Your task to perform on an android device: Go to Yahoo.com Image 0: 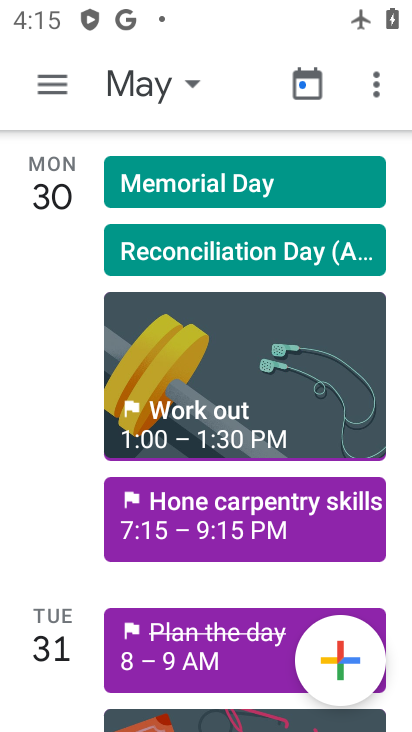
Step 0: press home button
Your task to perform on an android device: Go to Yahoo.com Image 1: 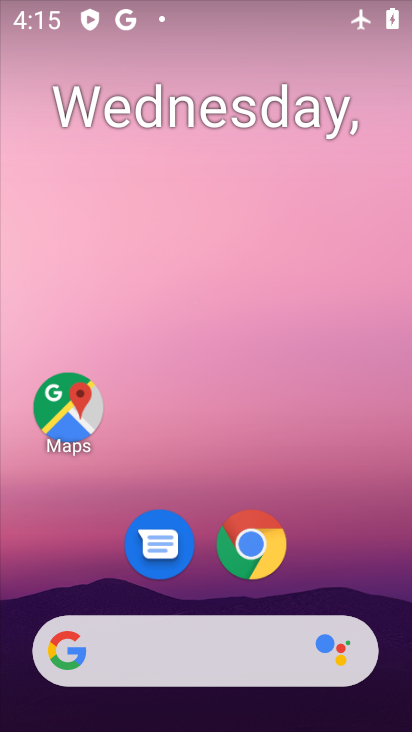
Step 1: drag from (386, 556) to (373, 221)
Your task to perform on an android device: Go to Yahoo.com Image 2: 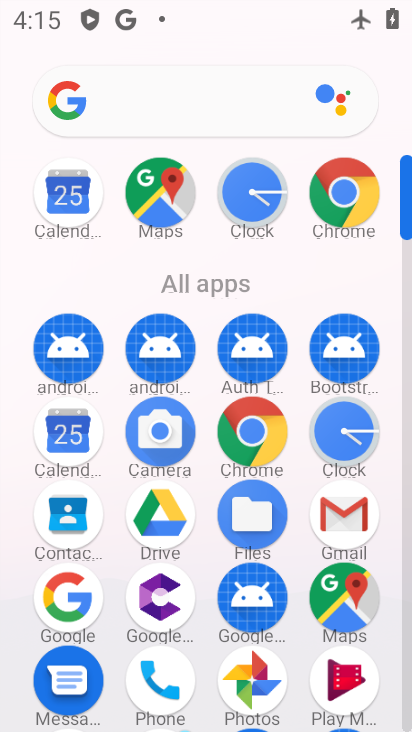
Step 2: click (267, 460)
Your task to perform on an android device: Go to Yahoo.com Image 3: 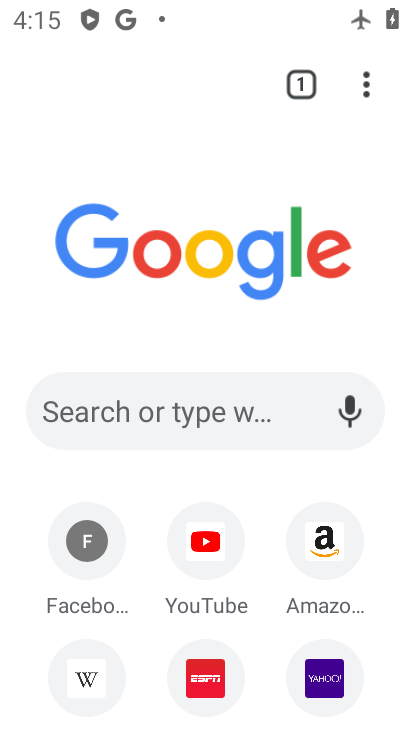
Step 3: click (320, 669)
Your task to perform on an android device: Go to Yahoo.com Image 4: 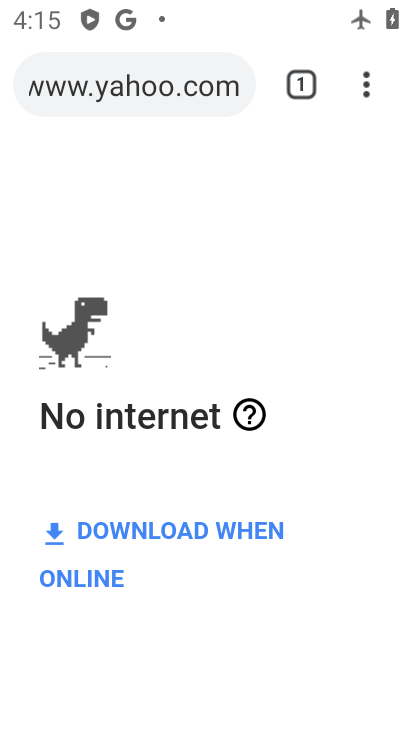
Step 4: press back button
Your task to perform on an android device: Go to Yahoo.com Image 5: 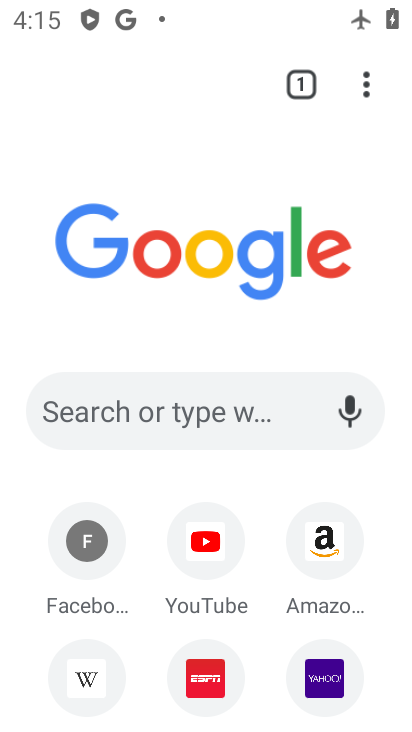
Step 5: press back button
Your task to perform on an android device: Go to Yahoo.com Image 6: 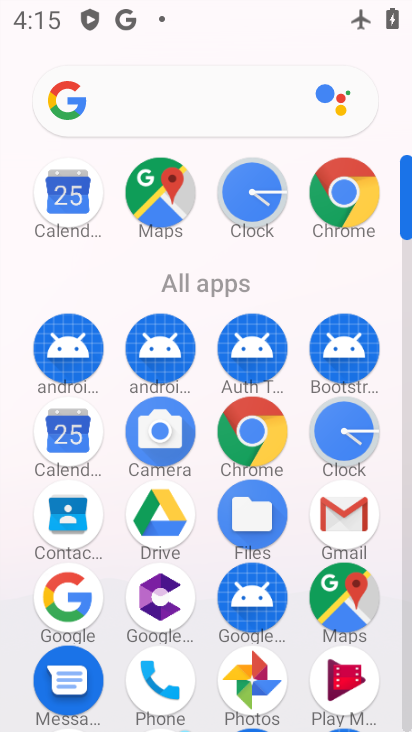
Step 6: drag from (293, 442) to (278, 230)
Your task to perform on an android device: Go to Yahoo.com Image 7: 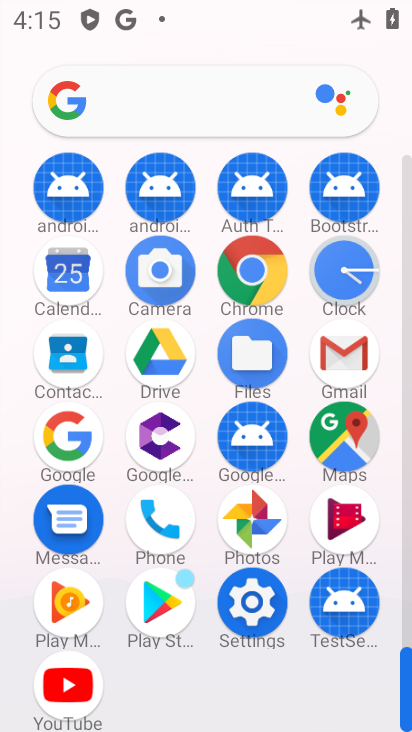
Step 7: click (254, 618)
Your task to perform on an android device: Go to Yahoo.com Image 8: 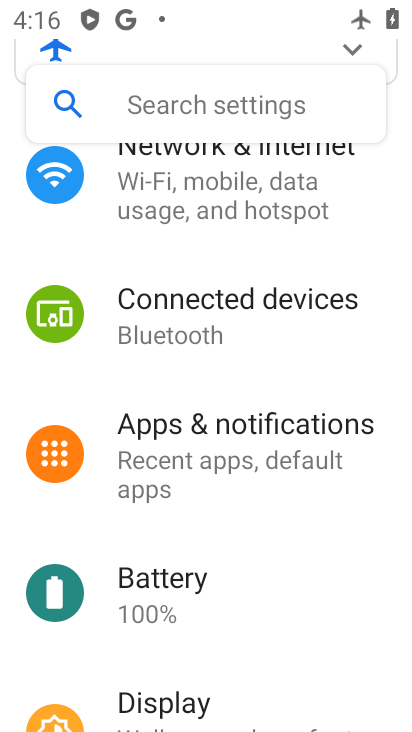
Step 8: click (270, 209)
Your task to perform on an android device: Go to Yahoo.com Image 9: 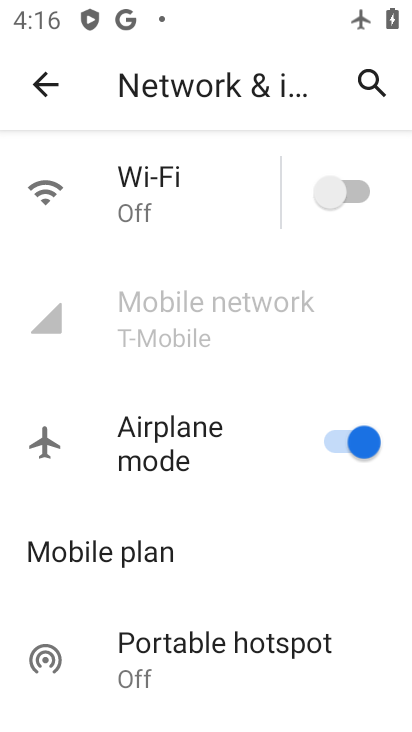
Step 9: click (335, 438)
Your task to perform on an android device: Go to Yahoo.com Image 10: 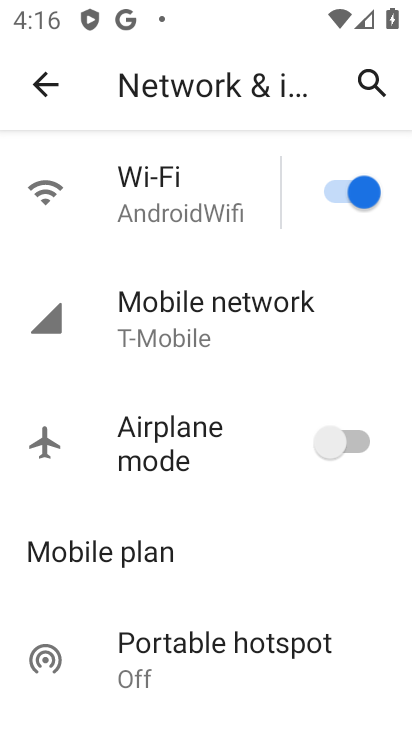
Step 10: task complete